Your task to perform on an android device: Clear the shopping cart on target.com. Add "duracell triple a" to the cart on target.com Image 0: 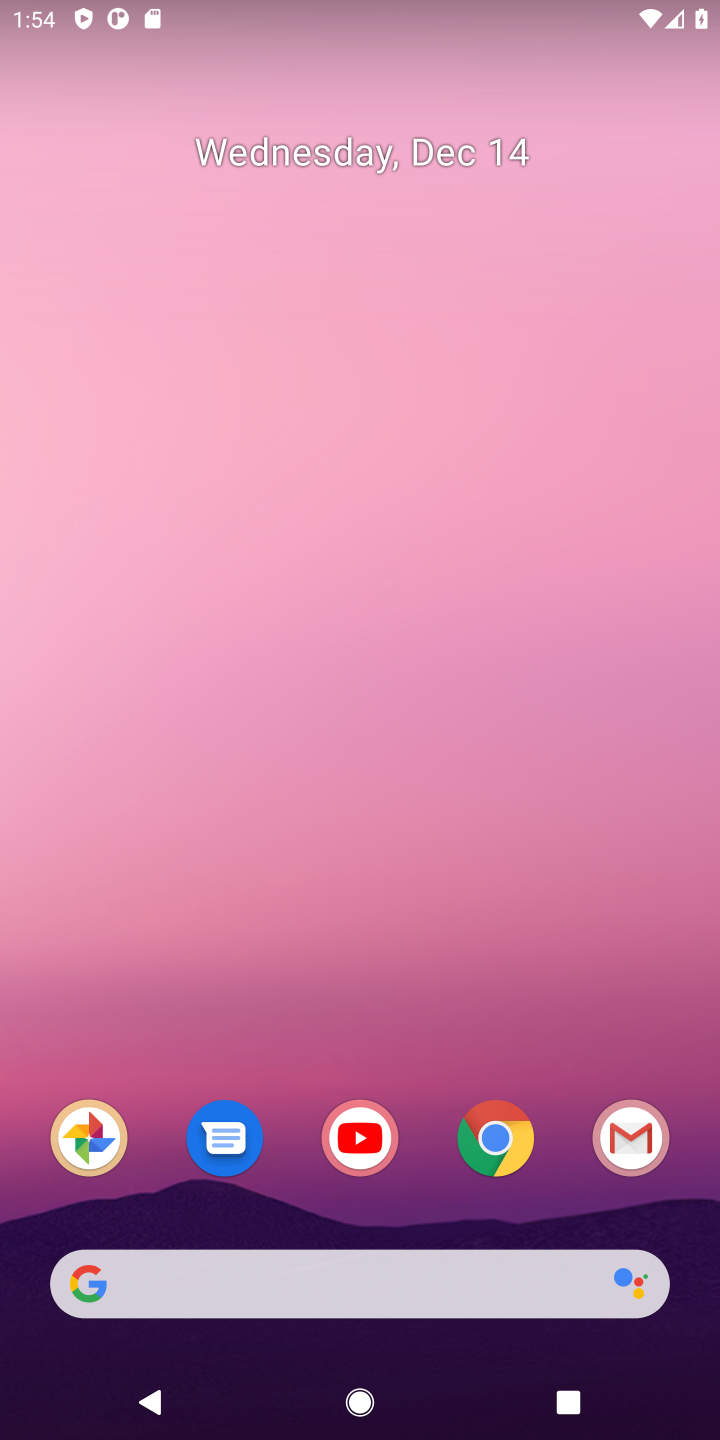
Step 0: click (518, 1148)
Your task to perform on an android device: Clear the shopping cart on target.com. Add "duracell triple a" to the cart on target.com Image 1: 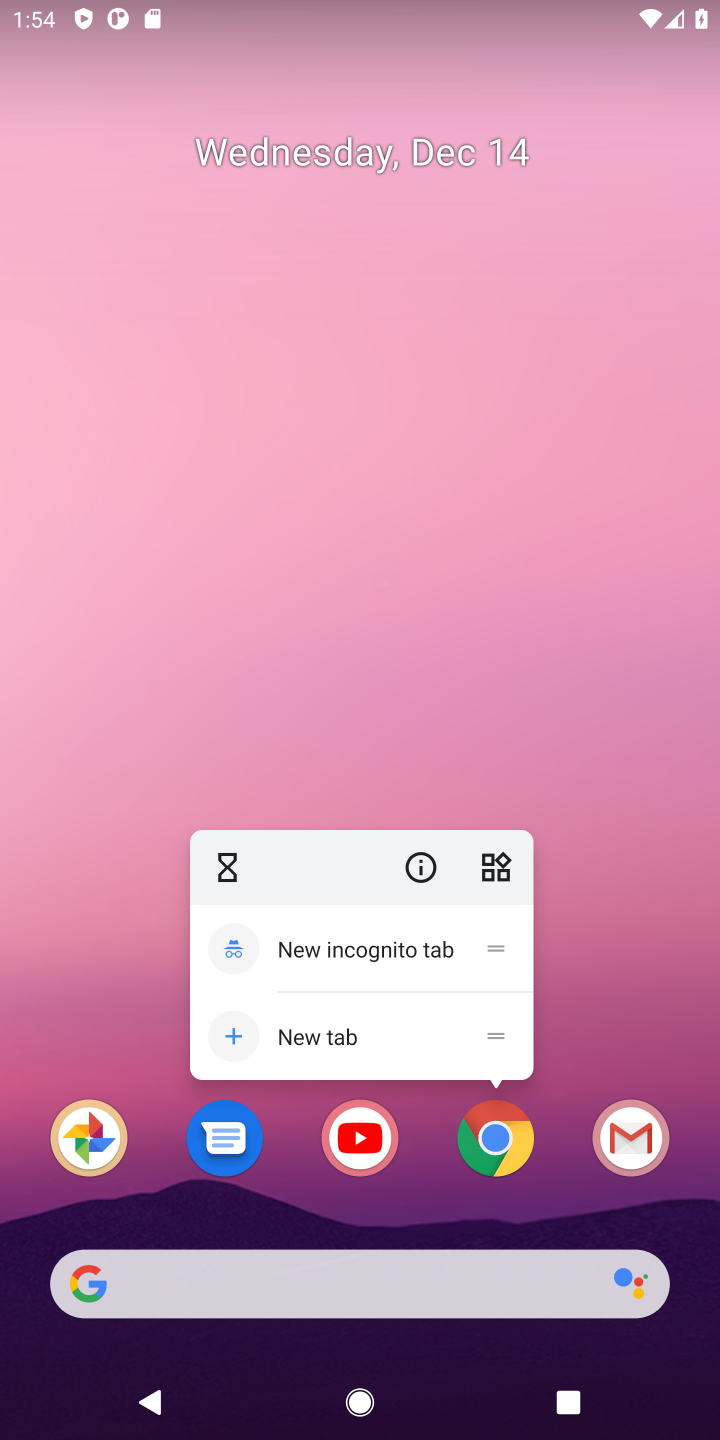
Step 1: click (518, 1148)
Your task to perform on an android device: Clear the shopping cart on target.com. Add "duracell triple a" to the cart on target.com Image 2: 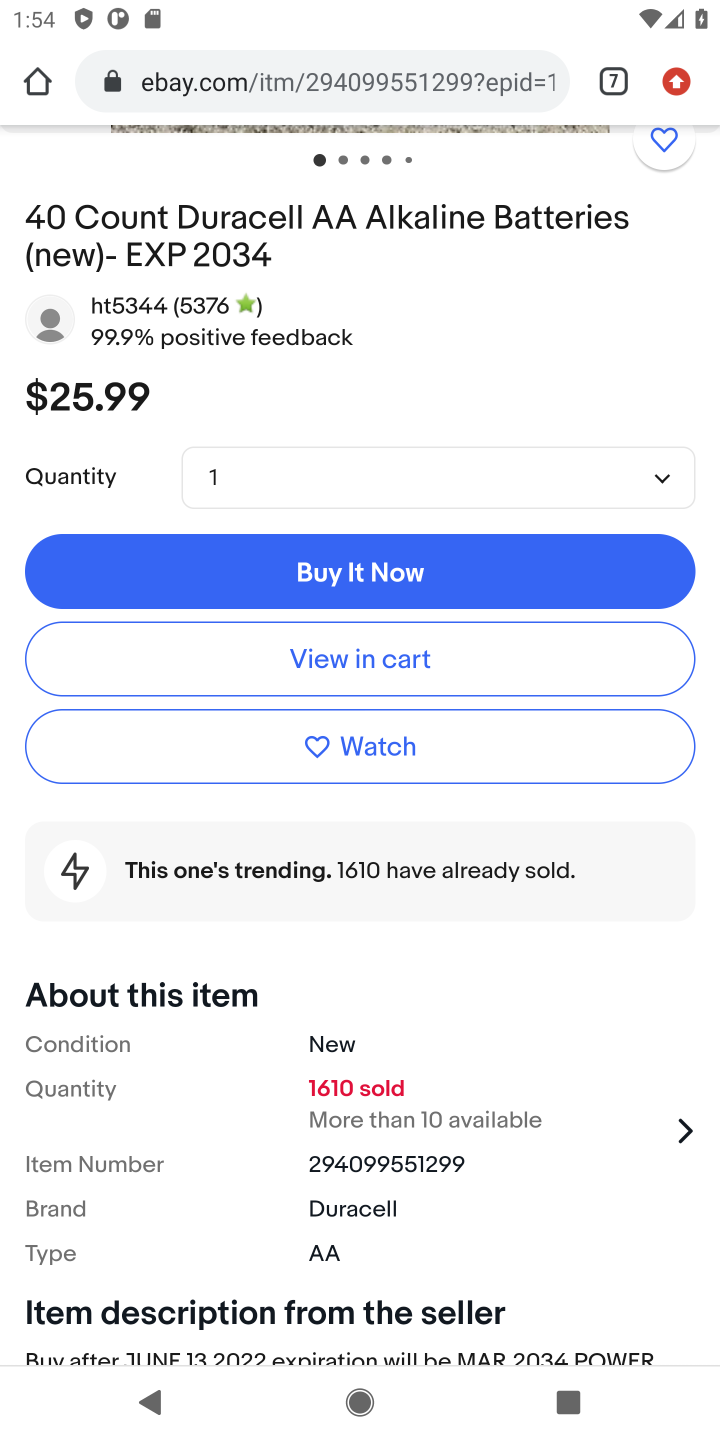
Step 2: click (619, 70)
Your task to perform on an android device: Clear the shopping cart on target.com. Add "duracell triple a" to the cart on target.com Image 3: 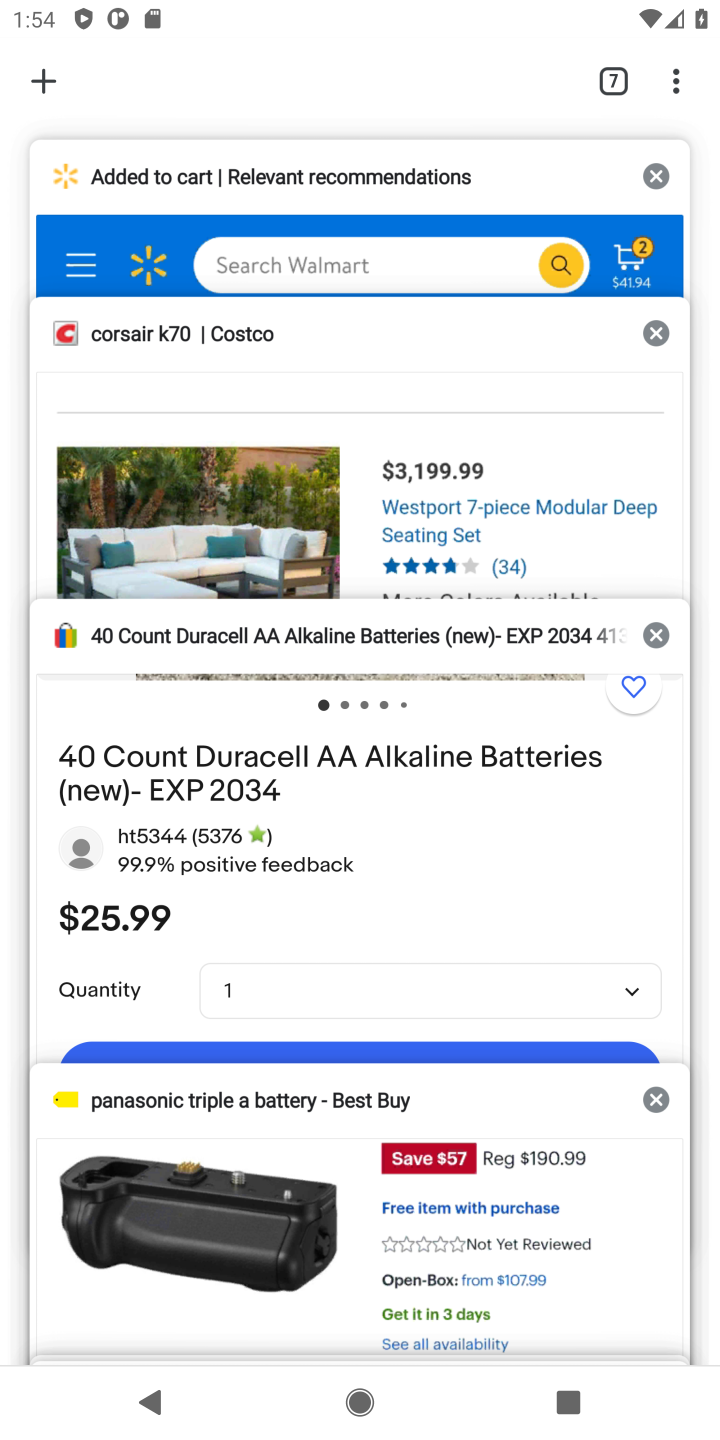
Step 3: drag from (290, 1355) to (342, 870)
Your task to perform on an android device: Clear the shopping cart on target.com. Add "duracell triple a" to the cart on target.com Image 4: 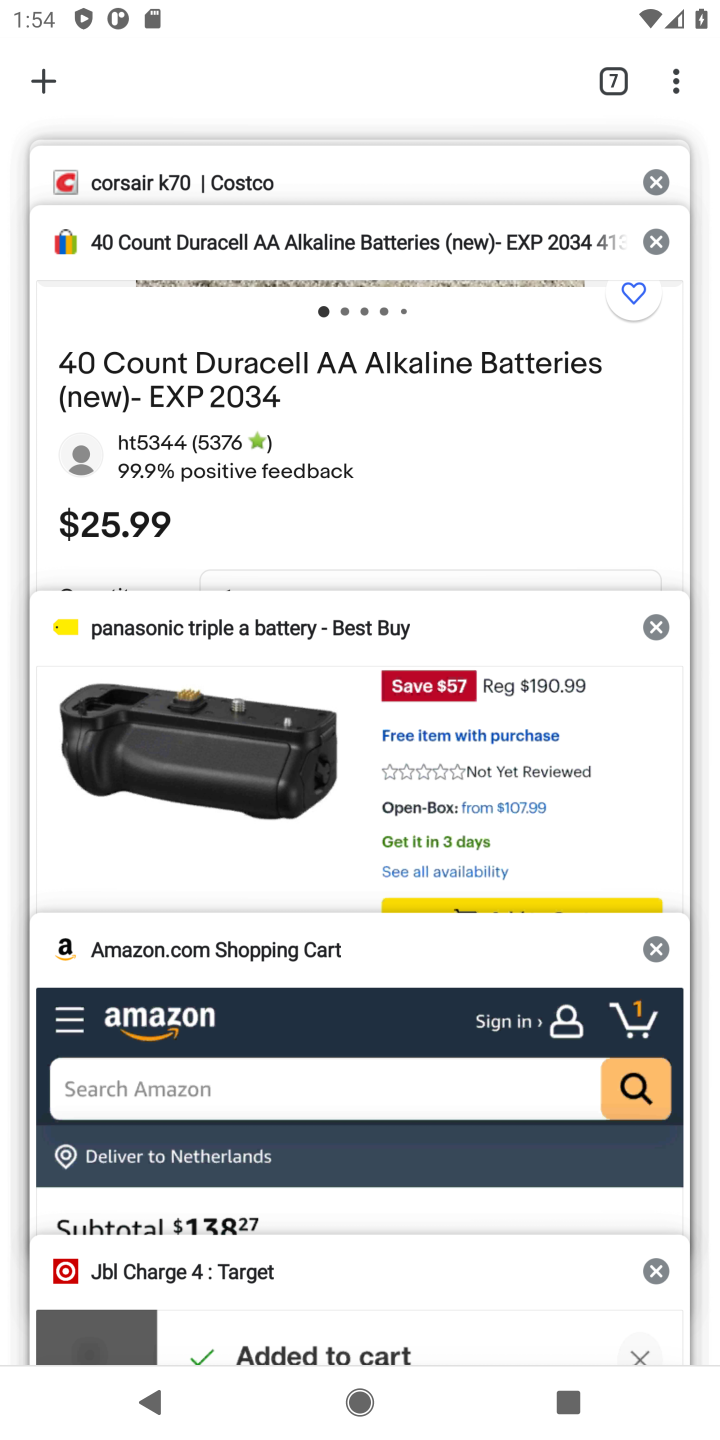
Step 4: click (263, 1294)
Your task to perform on an android device: Clear the shopping cart on target.com. Add "duracell triple a" to the cart on target.com Image 5: 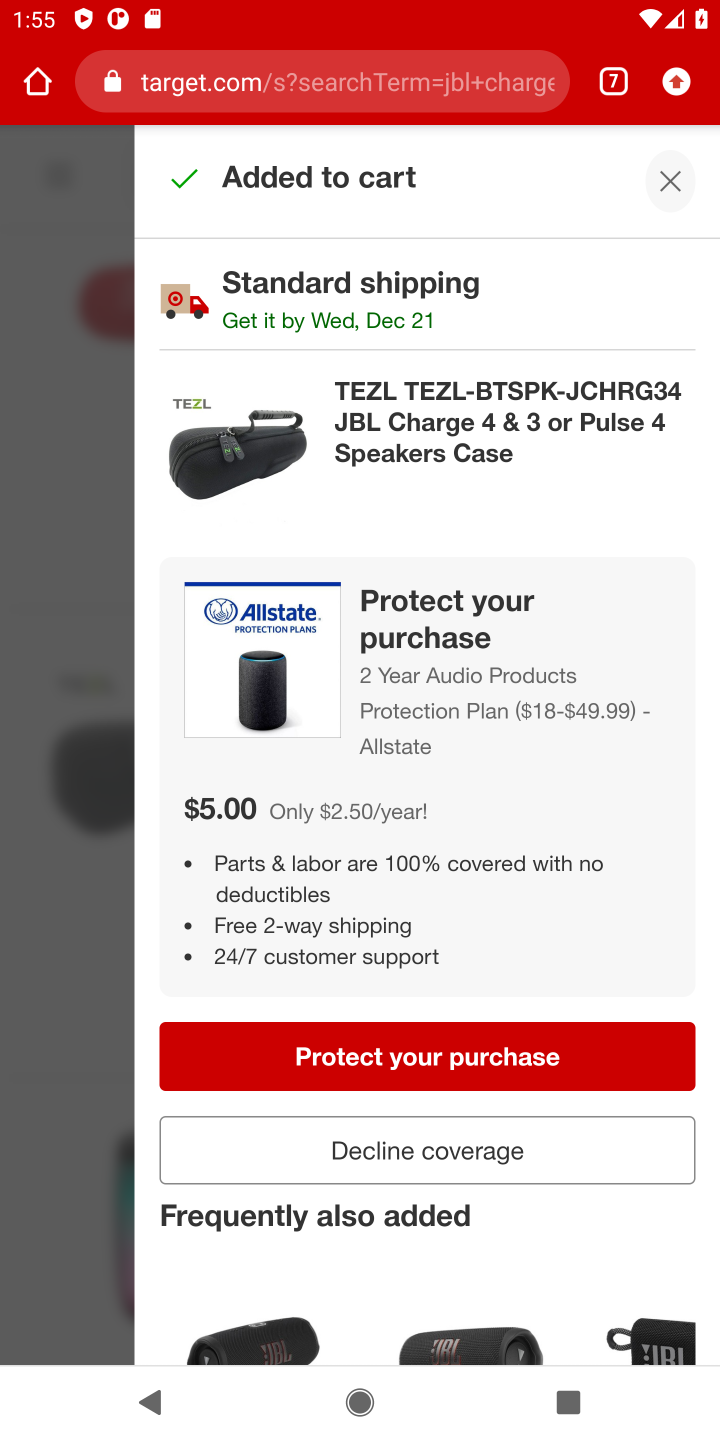
Step 5: click (666, 167)
Your task to perform on an android device: Clear the shopping cart on target.com. Add "duracell triple a" to the cart on target.com Image 6: 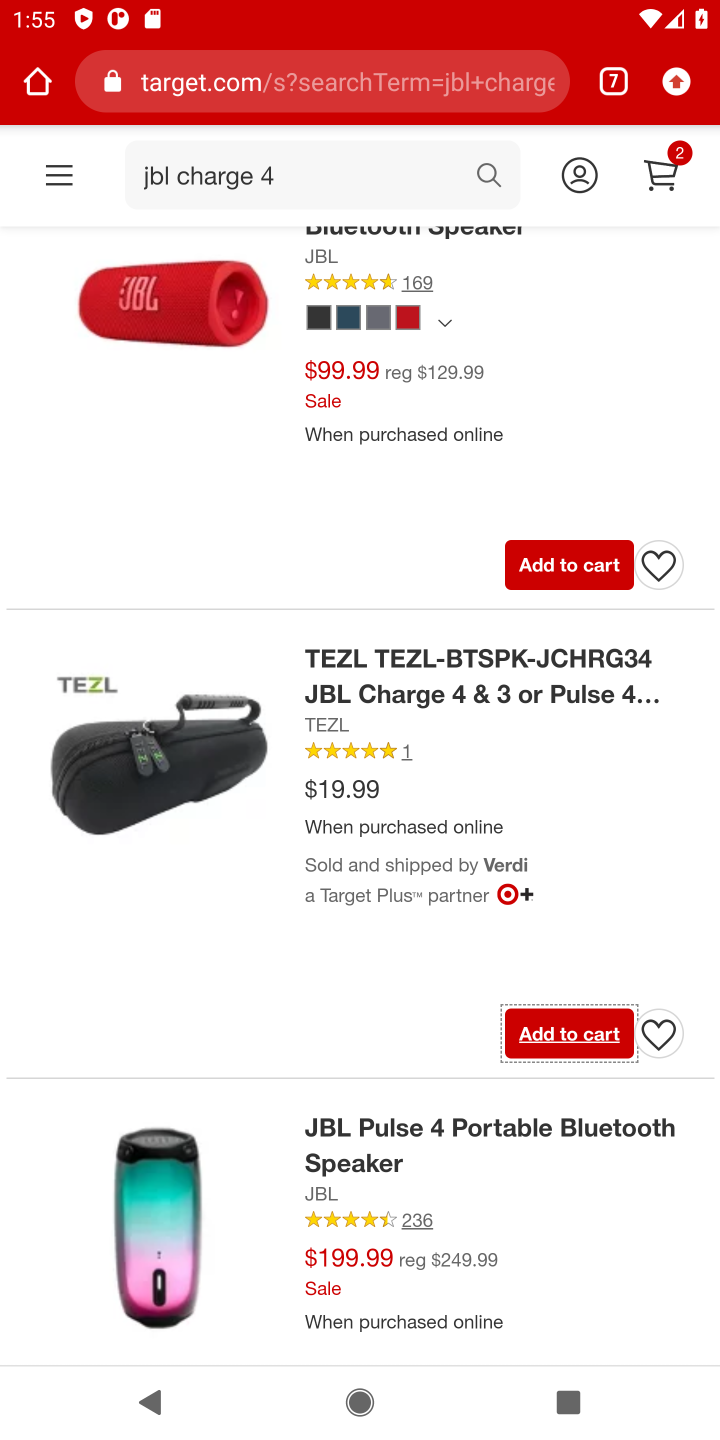
Step 6: click (672, 155)
Your task to perform on an android device: Clear the shopping cart on target.com. Add "duracell triple a" to the cart on target.com Image 7: 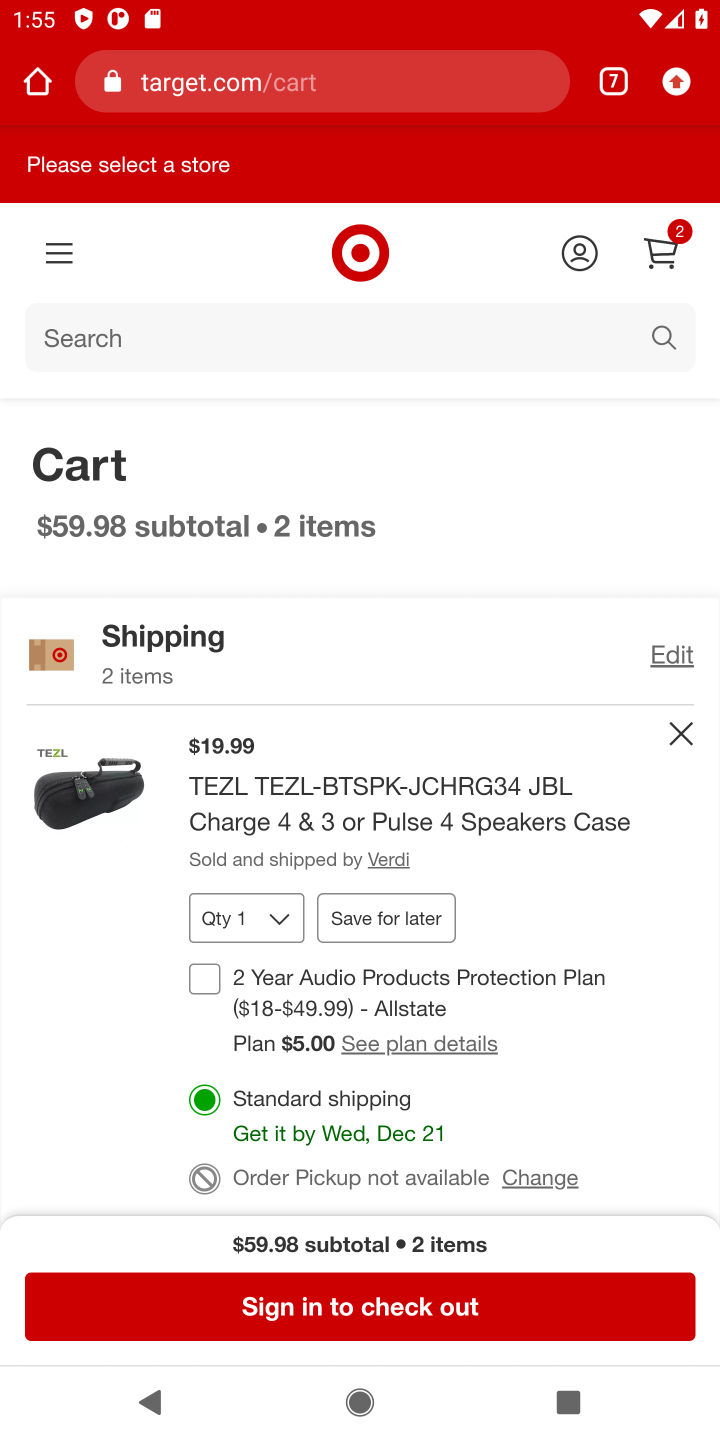
Step 7: click (678, 732)
Your task to perform on an android device: Clear the shopping cart on target.com. Add "duracell triple a" to the cart on target.com Image 8: 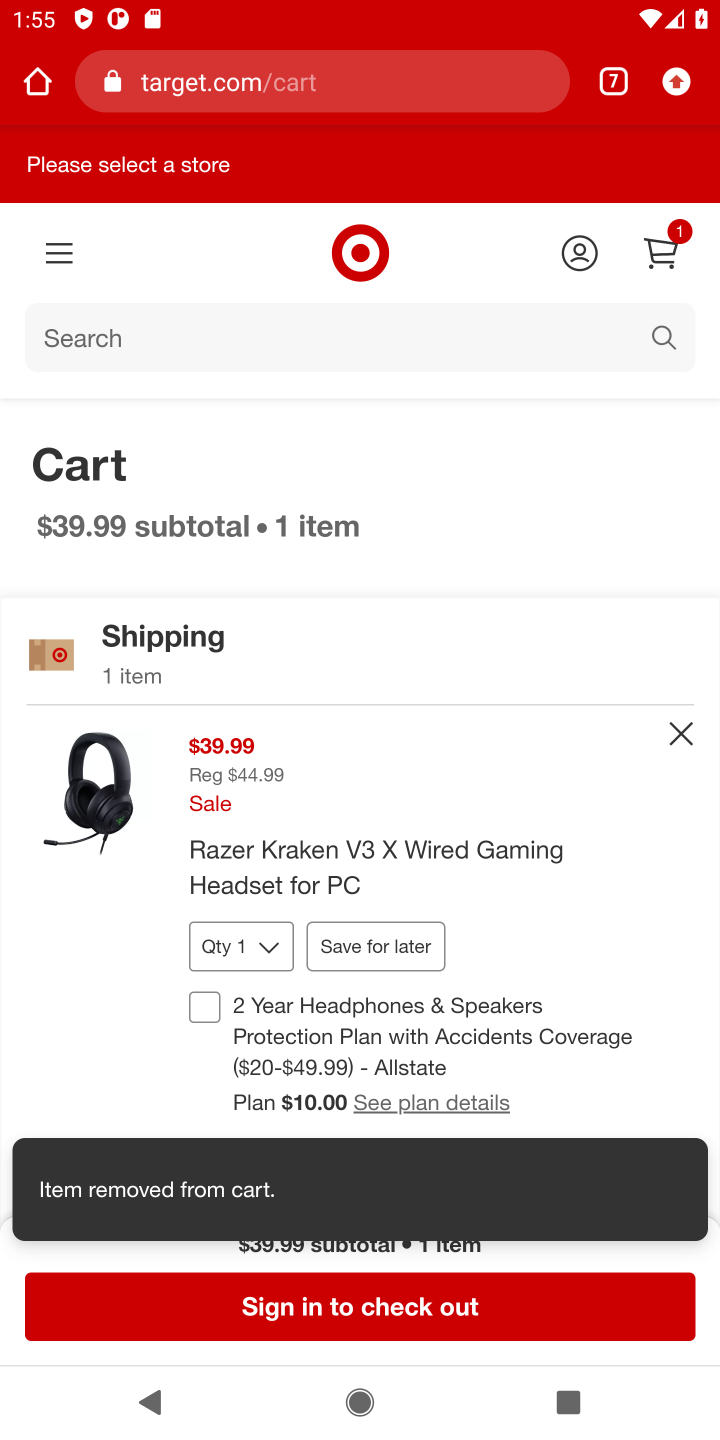
Step 8: click (678, 732)
Your task to perform on an android device: Clear the shopping cart on target.com. Add "duracell triple a" to the cart on target.com Image 9: 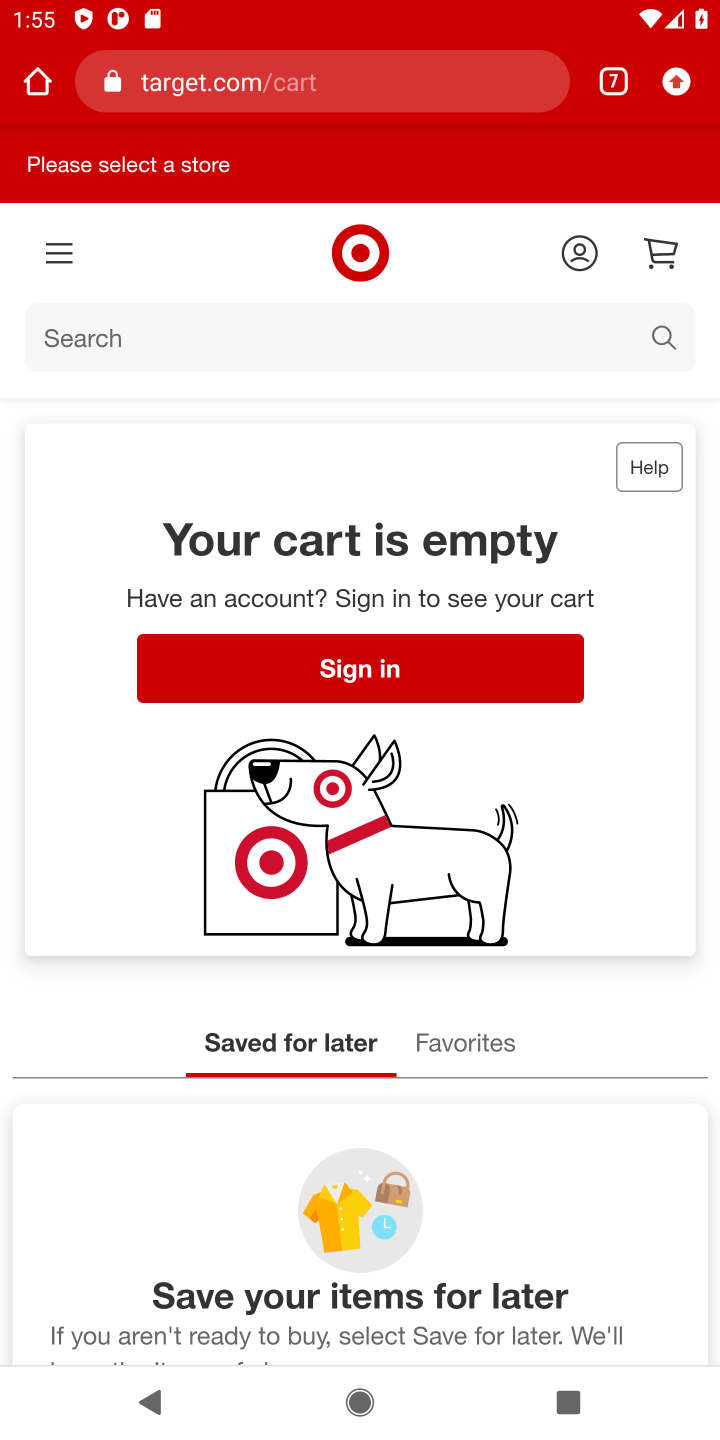
Step 9: click (84, 332)
Your task to perform on an android device: Clear the shopping cart on target.com. Add "duracell triple a" to the cart on target.com Image 10: 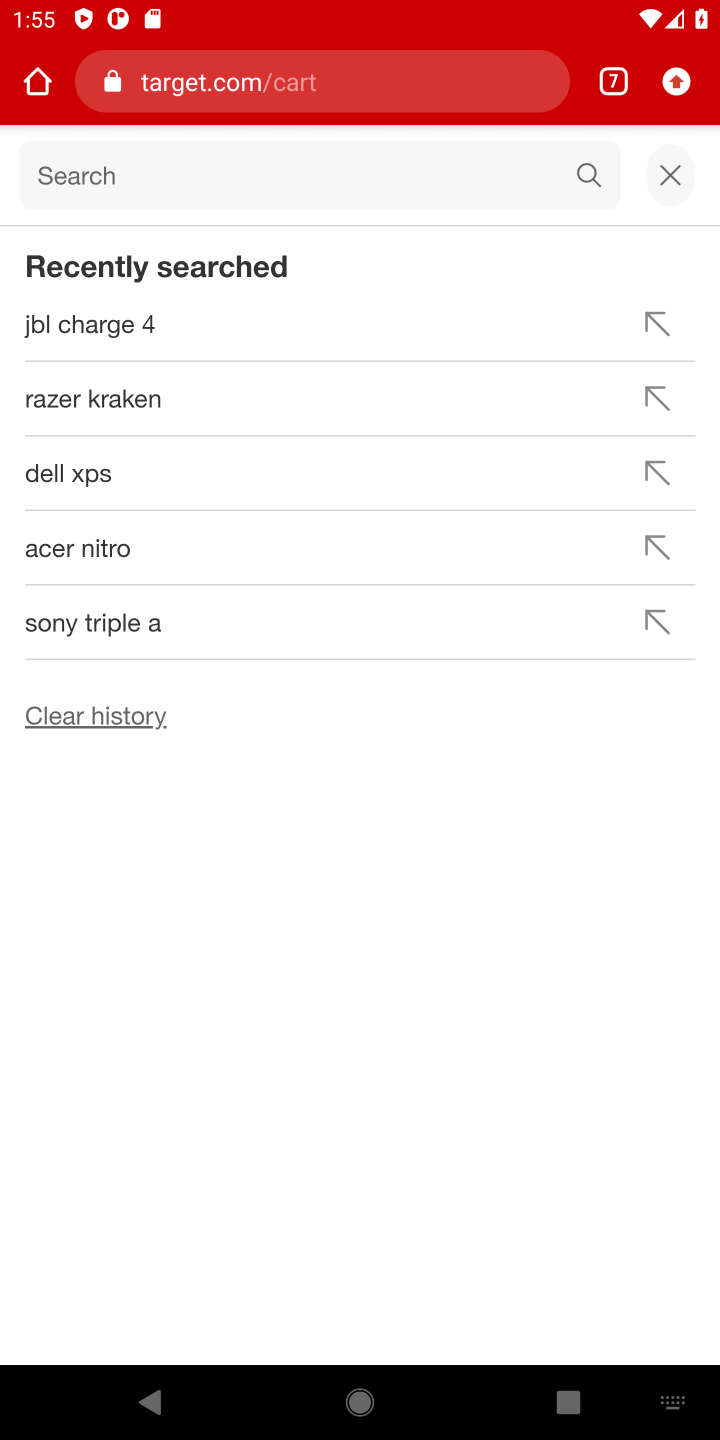
Step 10: type "duracell triple a"
Your task to perform on an android device: Clear the shopping cart on target.com. Add "duracell triple a" to the cart on target.com Image 11: 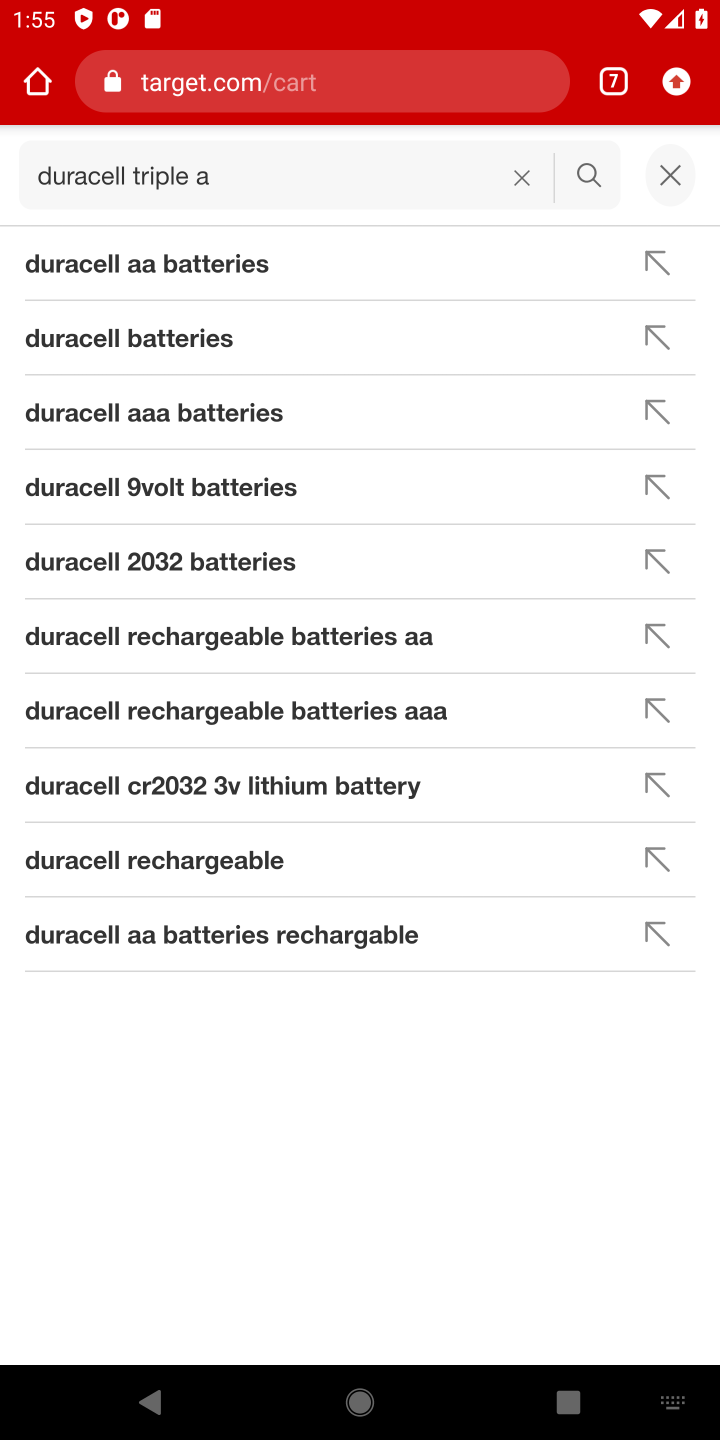
Step 11: click (169, 268)
Your task to perform on an android device: Clear the shopping cart on target.com. Add "duracell triple a" to the cart on target.com Image 12: 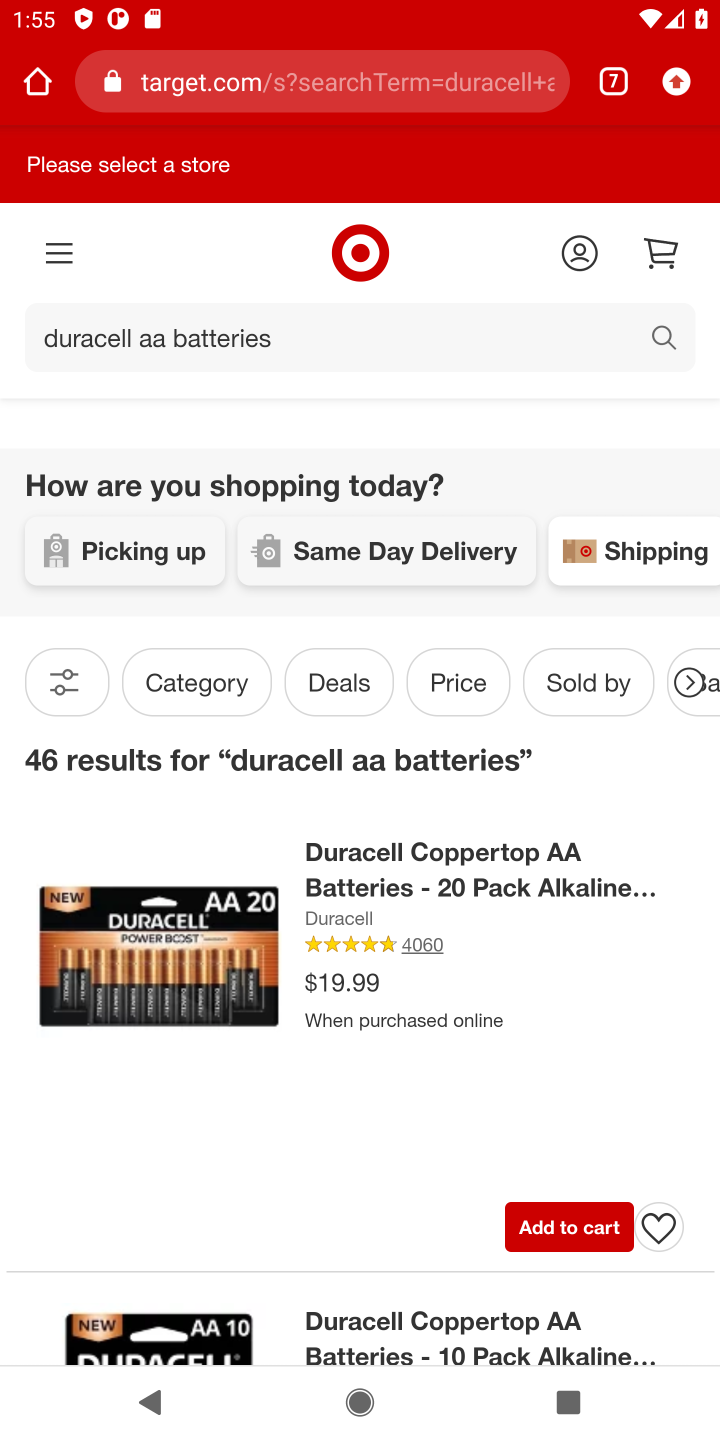
Step 12: click (573, 1224)
Your task to perform on an android device: Clear the shopping cart on target.com. Add "duracell triple a" to the cart on target.com Image 13: 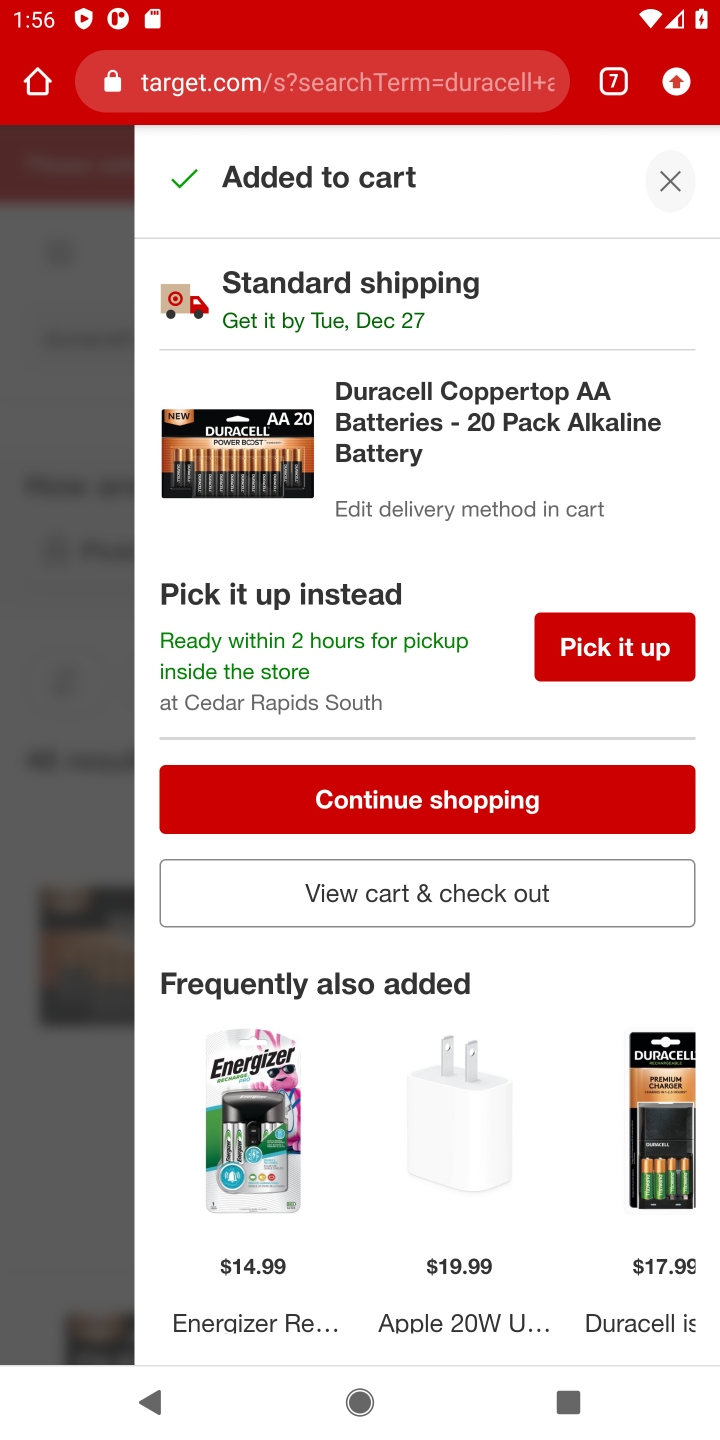
Step 13: task complete